Your task to perform on an android device: Do I have any events this weekend? Image 0: 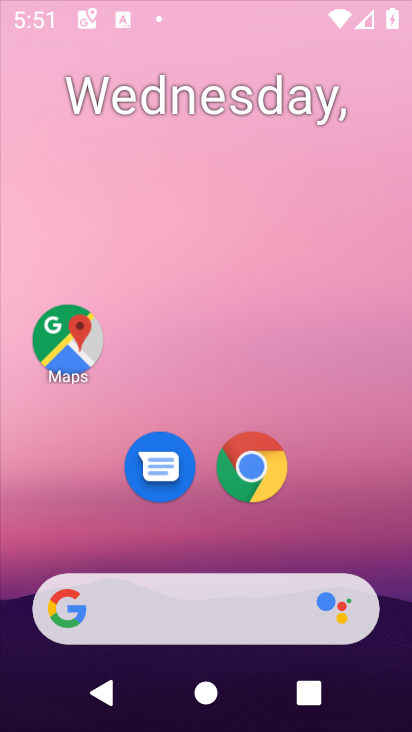
Step 0: press home button
Your task to perform on an android device: Do I have any events this weekend? Image 1: 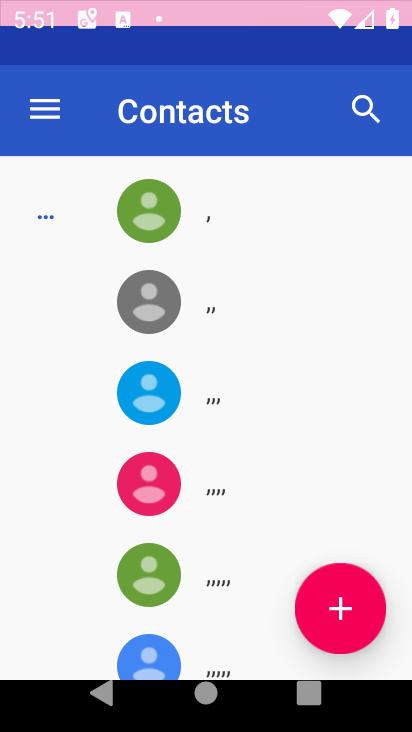
Step 1: drag from (310, 545) to (235, 20)
Your task to perform on an android device: Do I have any events this weekend? Image 2: 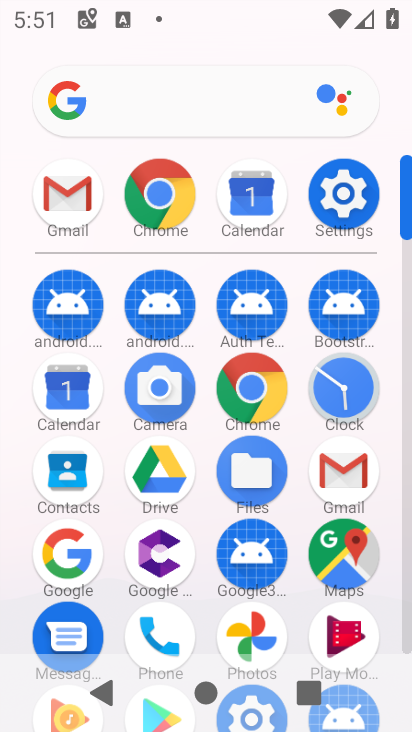
Step 2: click (85, 400)
Your task to perform on an android device: Do I have any events this weekend? Image 3: 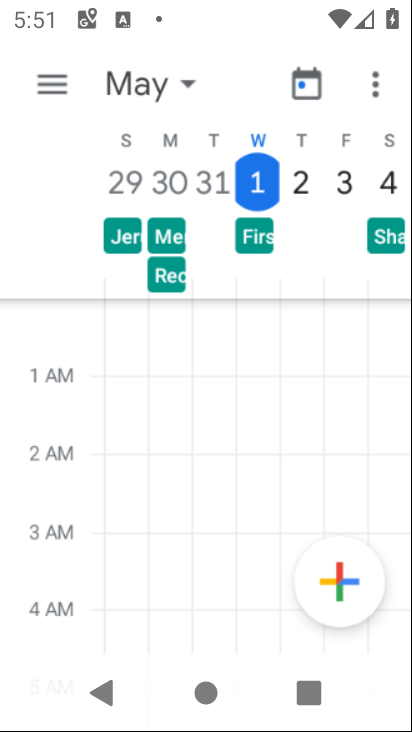
Step 3: task complete